Your task to perform on an android device: turn on location history Image 0: 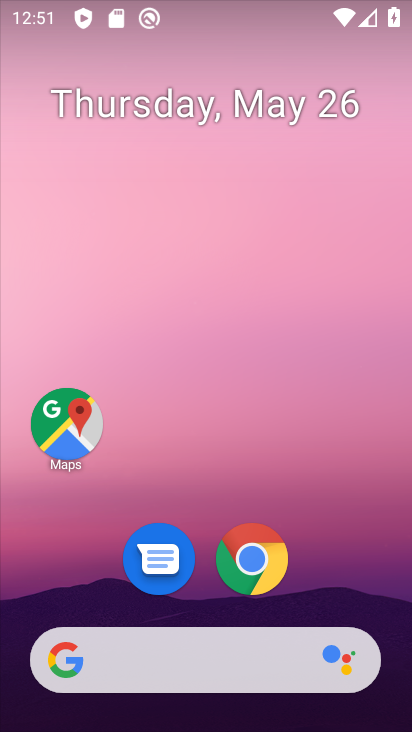
Step 0: press home button
Your task to perform on an android device: turn on location history Image 1: 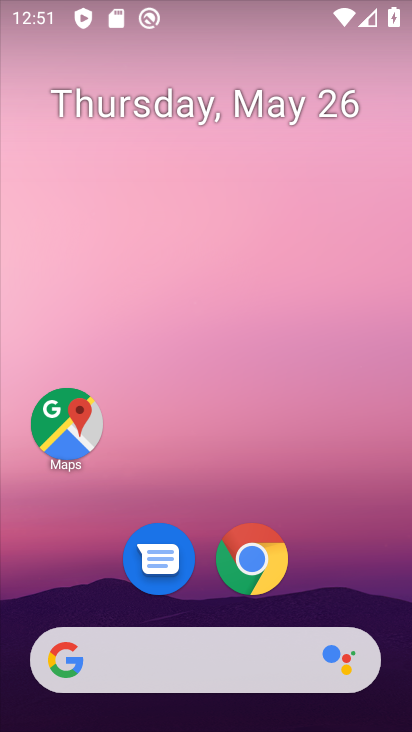
Step 1: drag from (166, 669) to (320, 180)
Your task to perform on an android device: turn on location history Image 2: 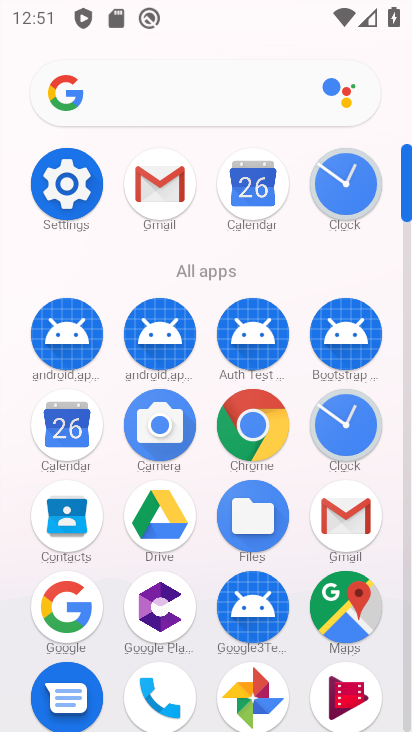
Step 2: click (344, 611)
Your task to perform on an android device: turn on location history Image 3: 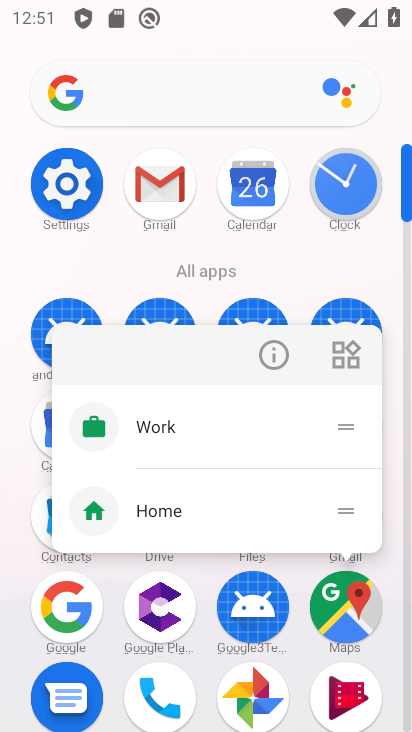
Step 3: click (352, 619)
Your task to perform on an android device: turn on location history Image 4: 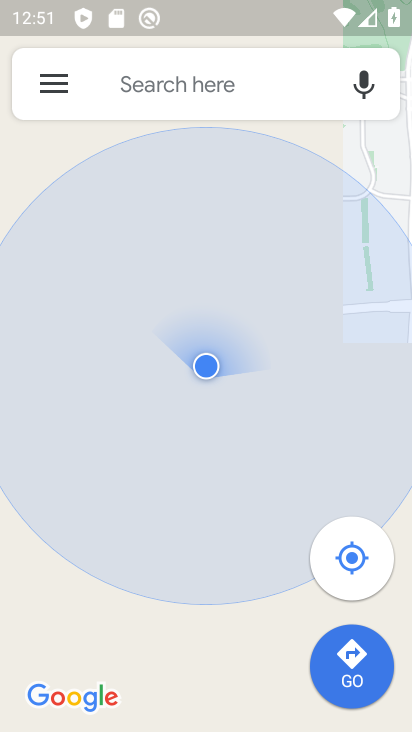
Step 4: click (60, 81)
Your task to perform on an android device: turn on location history Image 5: 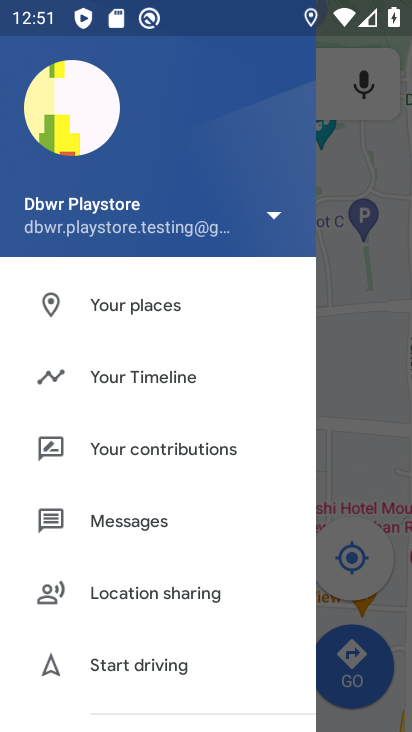
Step 5: click (140, 376)
Your task to perform on an android device: turn on location history Image 6: 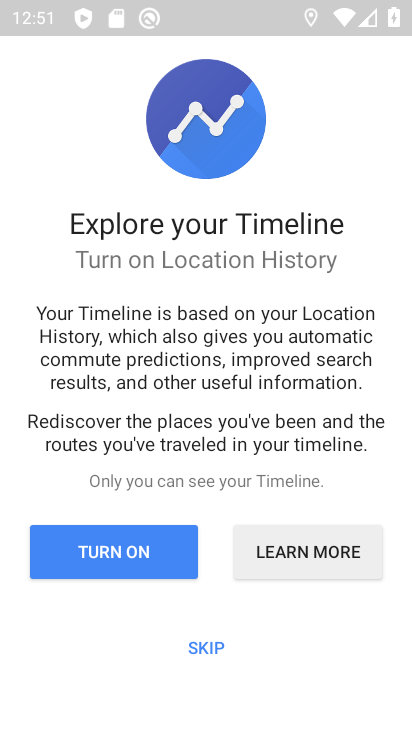
Step 6: click (223, 652)
Your task to perform on an android device: turn on location history Image 7: 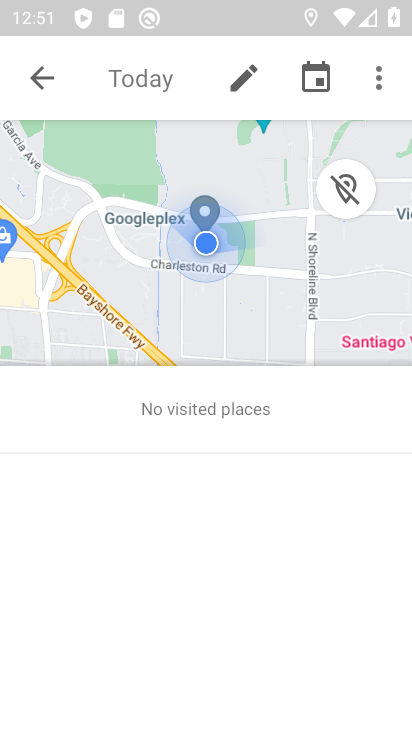
Step 7: click (377, 90)
Your task to perform on an android device: turn on location history Image 8: 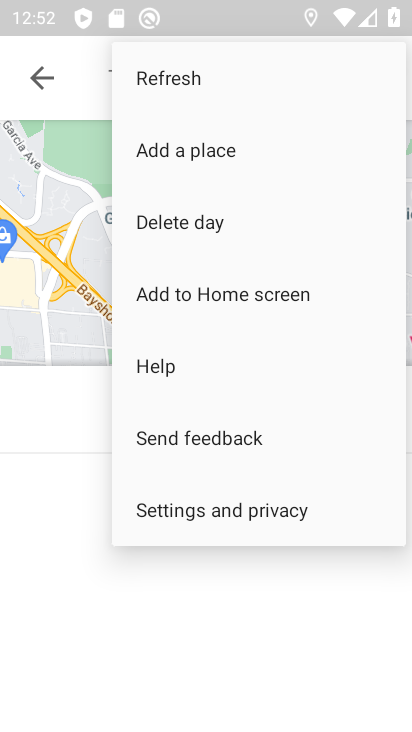
Step 8: click (232, 514)
Your task to perform on an android device: turn on location history Image 9: 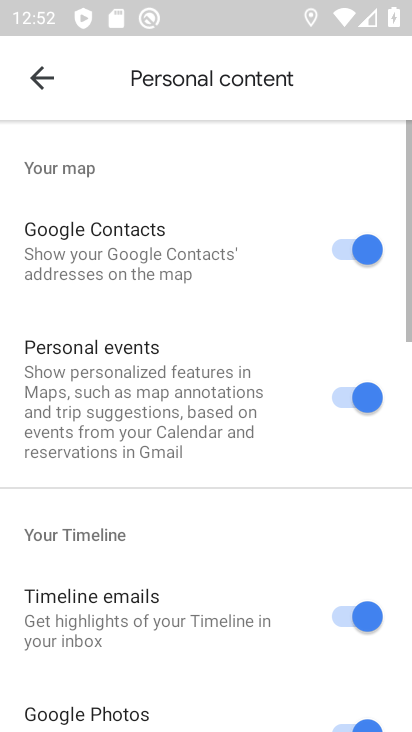
Step 9: drag from (202, 643) to (298, 225)
Your task to perform on an android device: turn on location history Image 10: 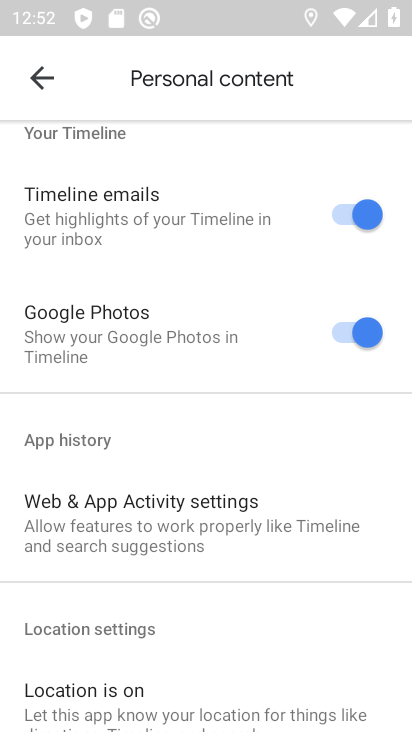
Step 10: drag from (186, 603) to (319, 208)
Your task to perform on an android device: turn on location history Image 11: 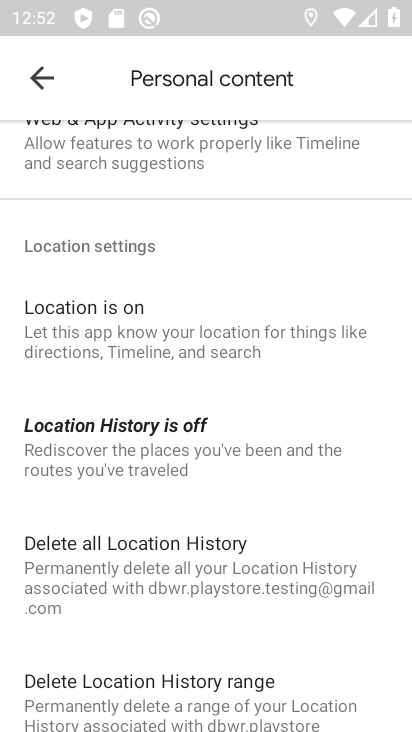
Step 11: click (198, 458)
Your task to perform on an android device: turn on location history Image 12: 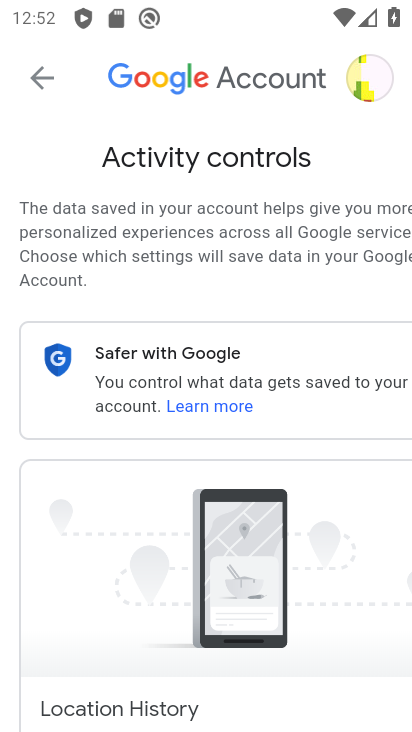
Step 12: drag from (161, 580) to (312, 183)
Your task to perform on an android device: turn on location history Image 13: 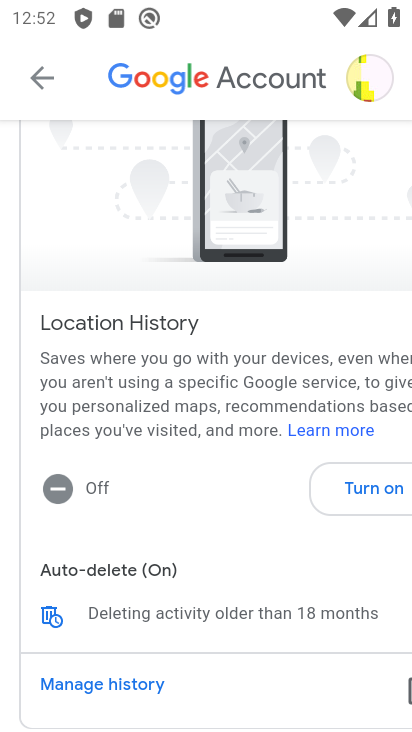
Step 13: click (363, 493)
Your task to perform on an android device: turn on location history Image 14: 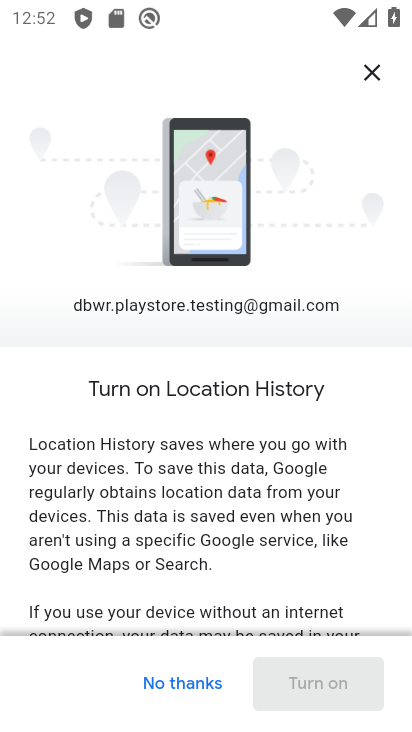
Step 14: drag from (299, 513) to (370, 145)
Your task to perform on an android device: turn on location history Image 15: 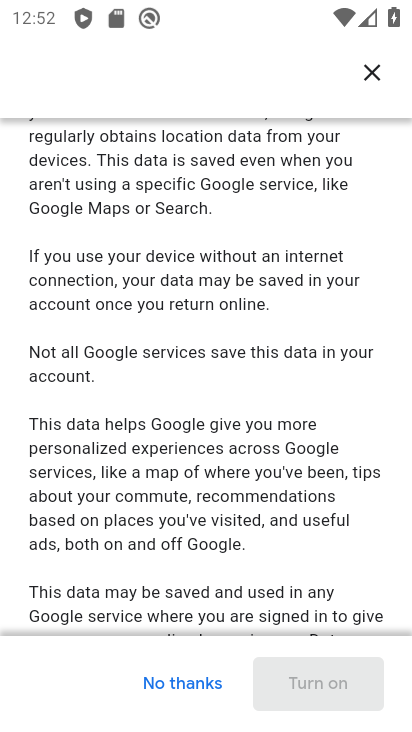
Step 15: drag from (262, 557) to (363, 101)
Your task to perform on an android device: turn on location history Image 16: 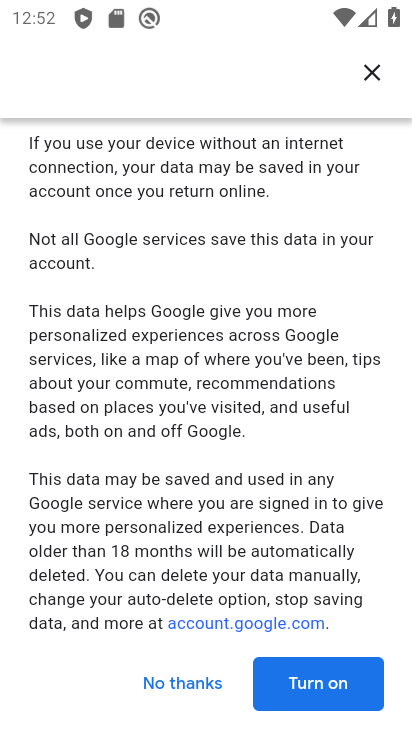
Step 16: click (323, 679)
Your task to perform on an android device: turn on location history Image 17: 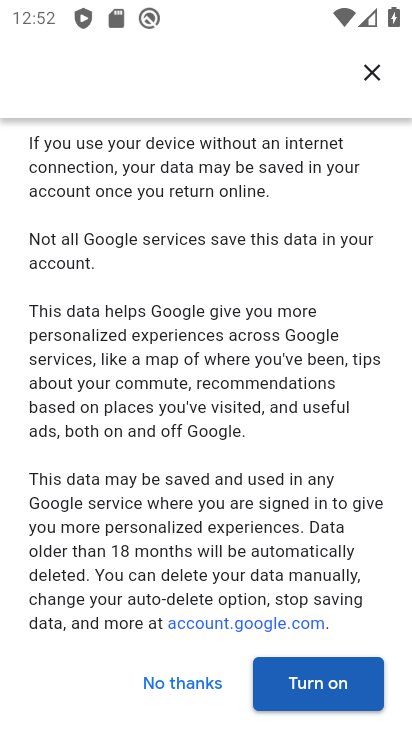
Step 17: click (320, 687)
Your task to perform on an android device: turn on location history Image 18: 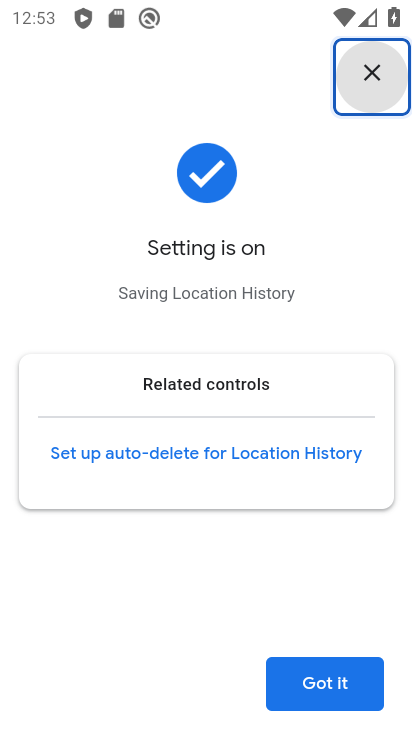
Step 18: click (366, 65)
Your task to perform on an android device: turn on location history Image 19: 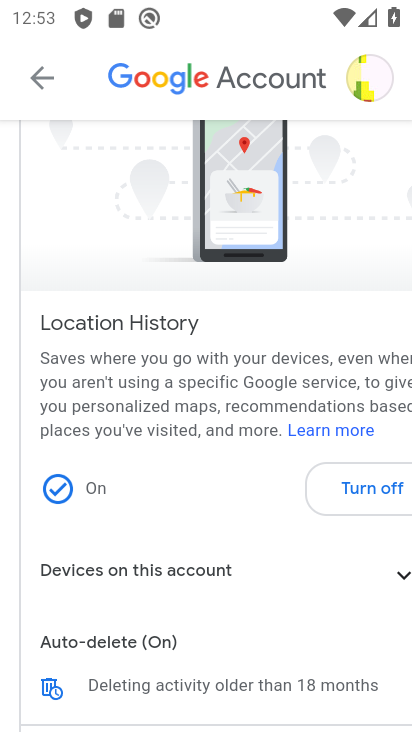
Step 19: task complete